Your task to perform on an android device: Open Google Image 0: 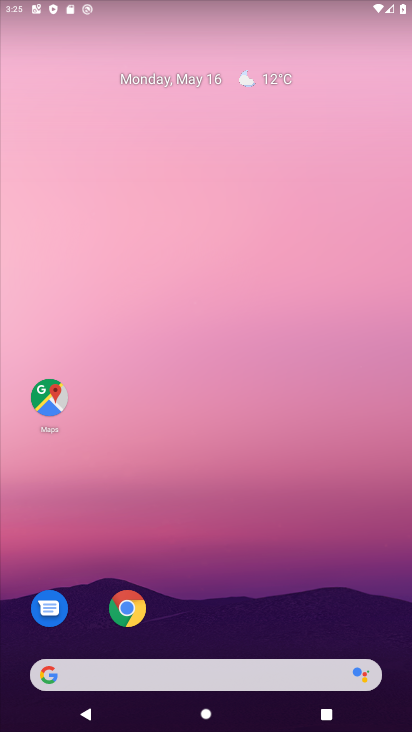
Step 0: drag from (199, 555) to (236, 227)
Your task to perform on an android device: Open Google Image 1: 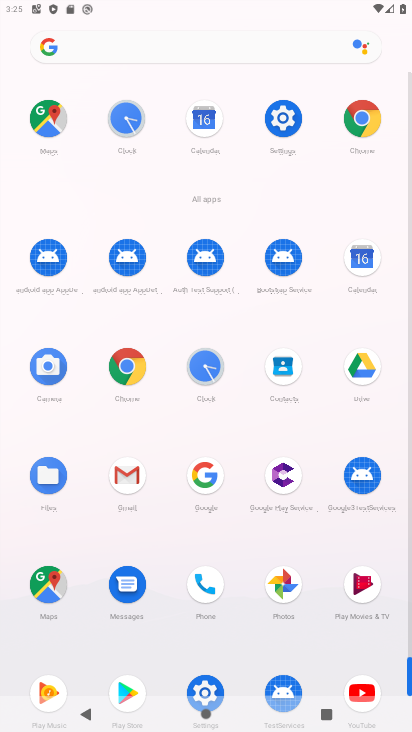
Step 1: drag from (146, 220) to (186, 193)
Your task to perform on an android device: Open Google Image 2: 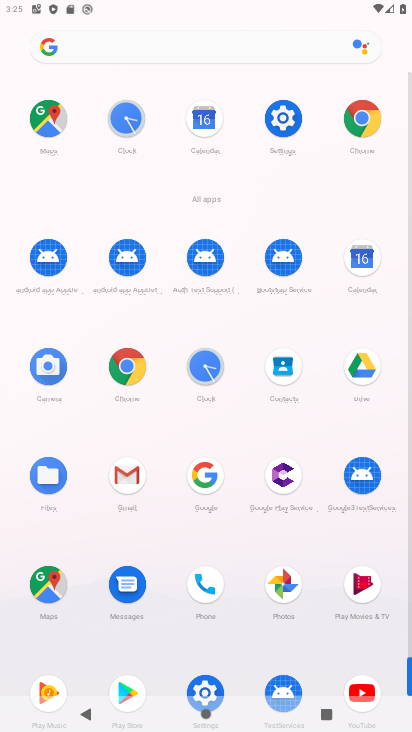
Step 2: click (209, 506)
Your task to perform on an android device: Open Google Image 3: 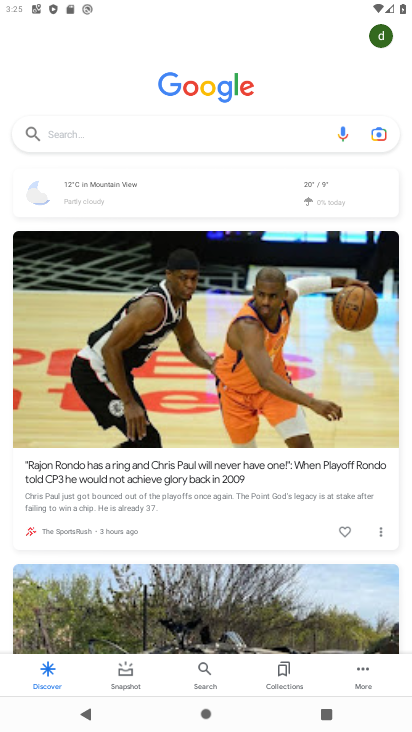
Step 3: task complete